Your task to perform on an android device: allow cookies in the chrome app Image 0: 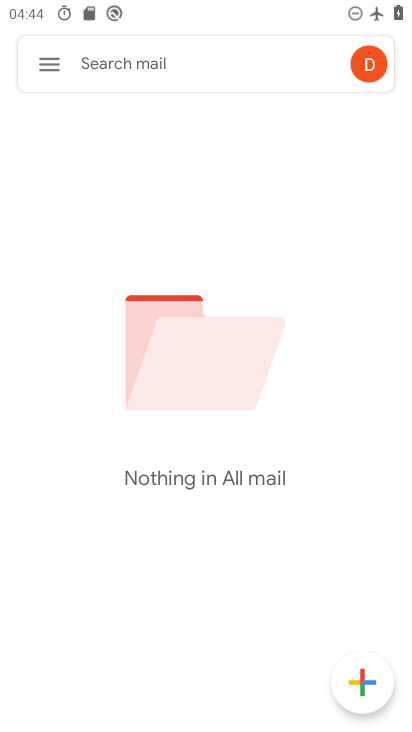
Step 0: press back button
Your task to perform on an android device: allow cookies in the chrome app Image 1: 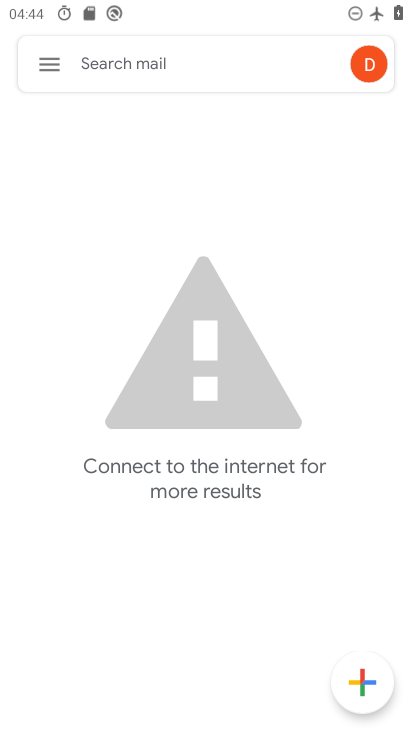
Step 1: press back button
Your task to perform on an android device: allow cookies in the chrome app Image 2: 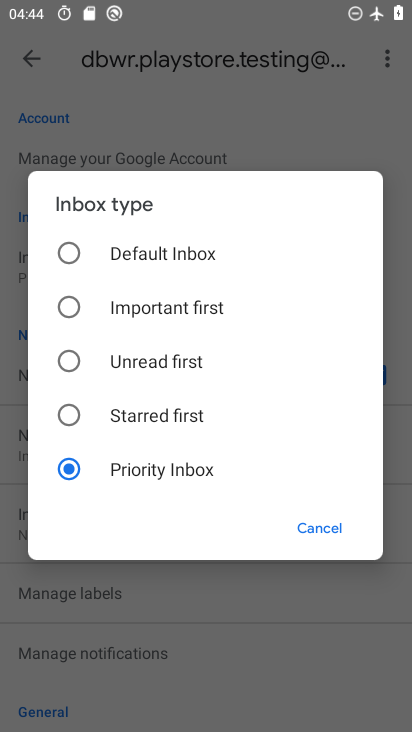
Step 2: press home button
Your task to perform on an android device: allow cookies in the chrome app Image 3: 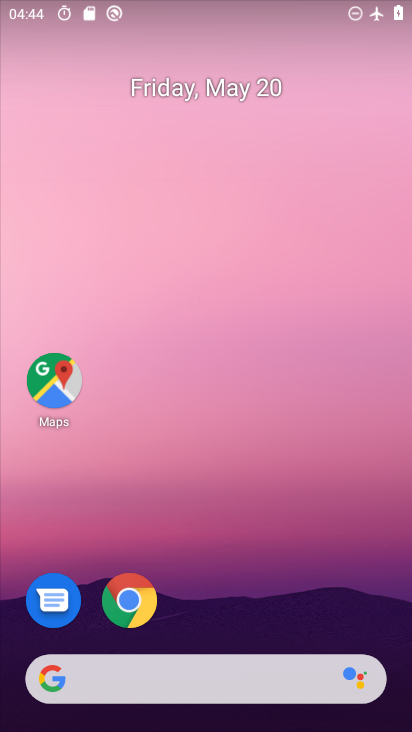
Step 3: click (134, 584)
Your task to perform on an android device: allow cookies in the chrome app Image 4: 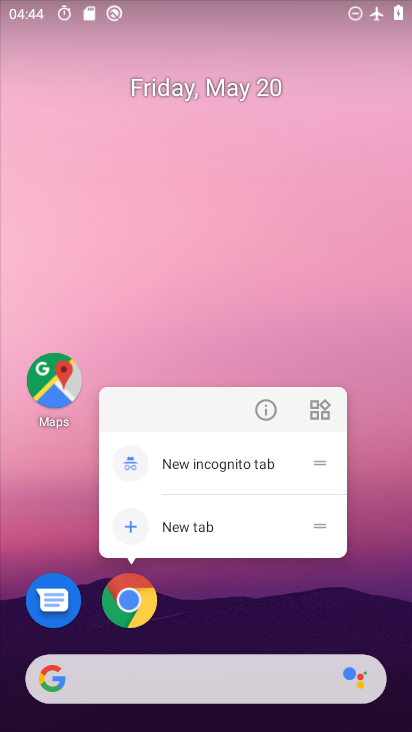
Step 4: click (130, 610)
Your task to perform on an android device: allow cookies in the chrome app Image 5: 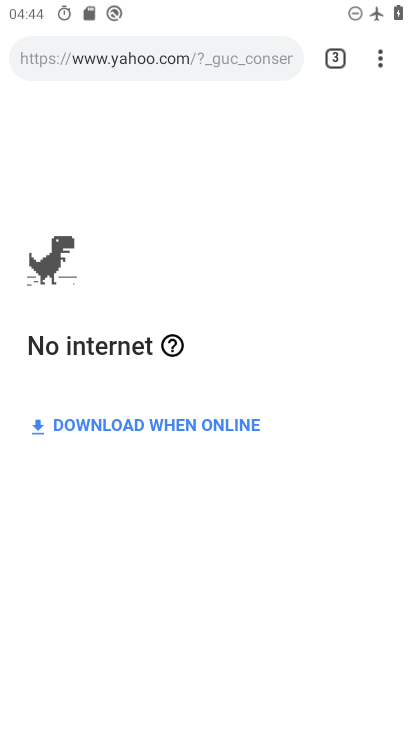
Step 5: drag from (379, 49) to (190, 642)
Your task to perform on an android device: allow cookies in the chrome app Image 6: 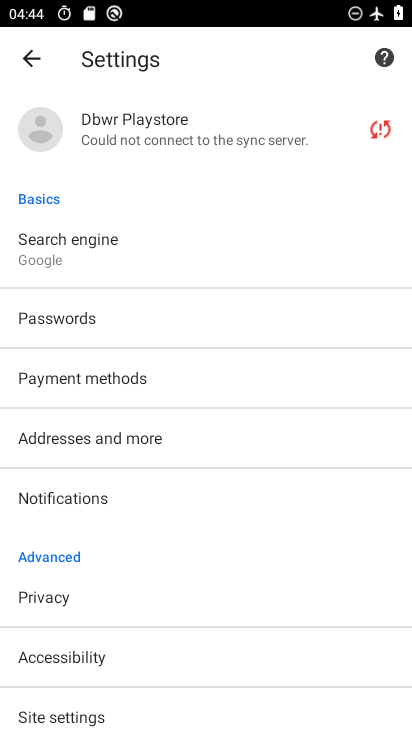
Step 6: click (66, 714)
Your task to perform on an android device: allow cookies in the chrome app Image 7: 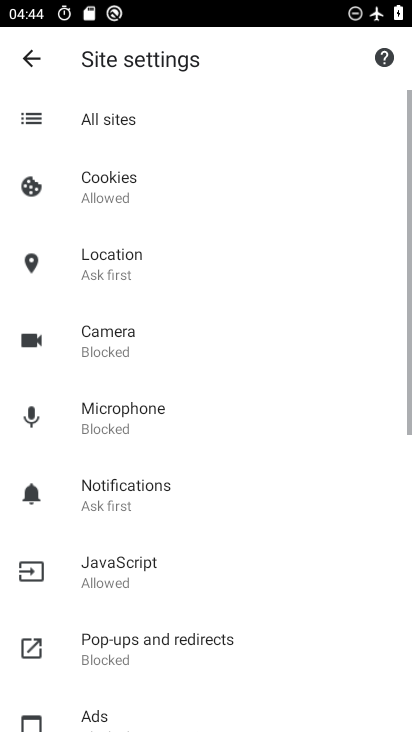
Step 7: click (130, 181)
Your task to perform on an android device: allow cookies in the chrome app Image 8: 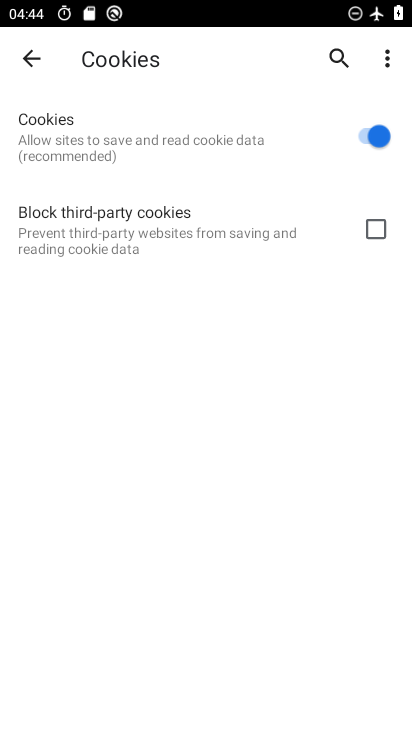
Step 8: task complete